Your task to perform on an android device: Search for "dell alienware" on bestbuy, select the first entry, add it to the cart, then select checkout. Image 0: 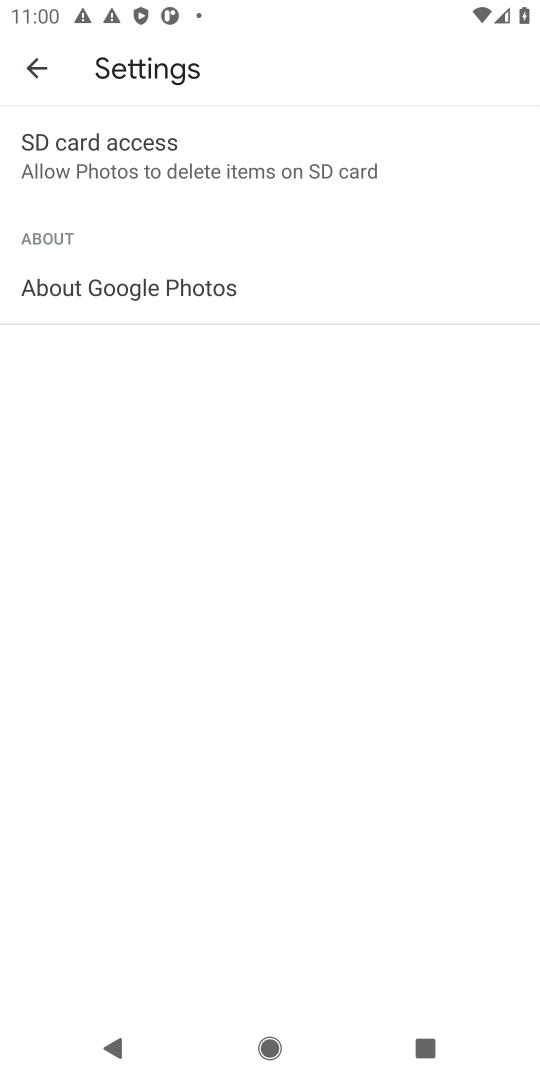
Step 0: press home button
Your task to perform on an android device: Search for "dell alienware" on bestbuy, select the first entry, add it to the cart, then select checkout. Image 1: 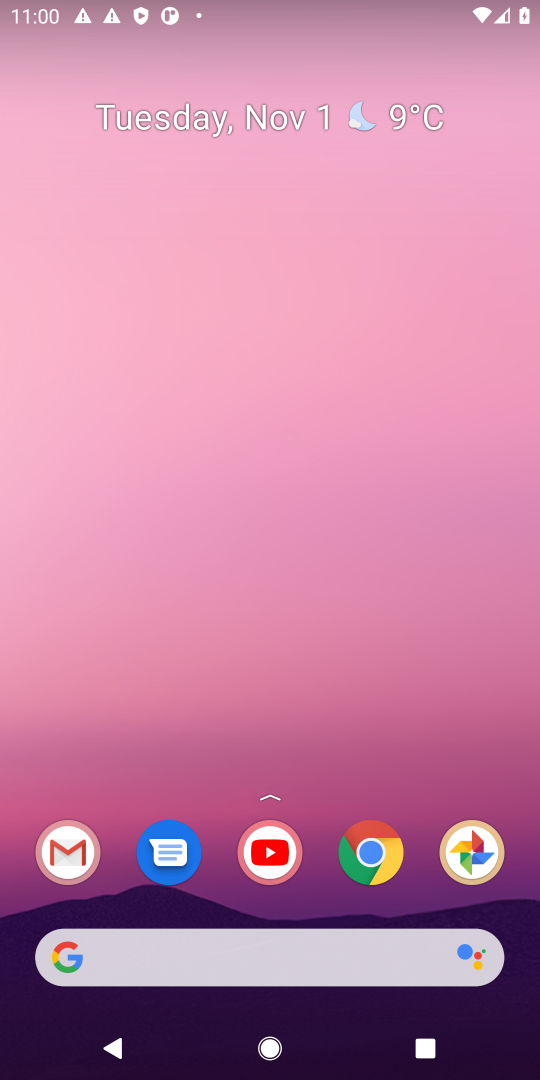
Step 1: drag from (150, 980) to (116, 165)
Your task to perform on an android device: Search for "dell alienware" on bestbuy, select the first entry, add it to the cart, then select checkout. Image 2: 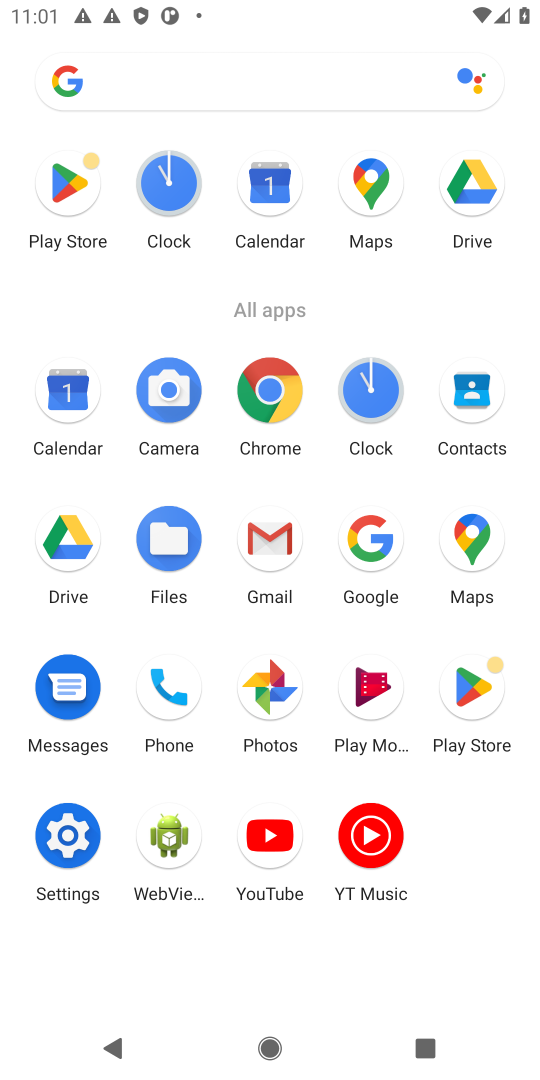
Step 2: click (353, 566)
Your task to perform on an android device: Search for "dell alienware" on bestbuy, select the first entry, add it to the cart, then select checkout. Image 3: 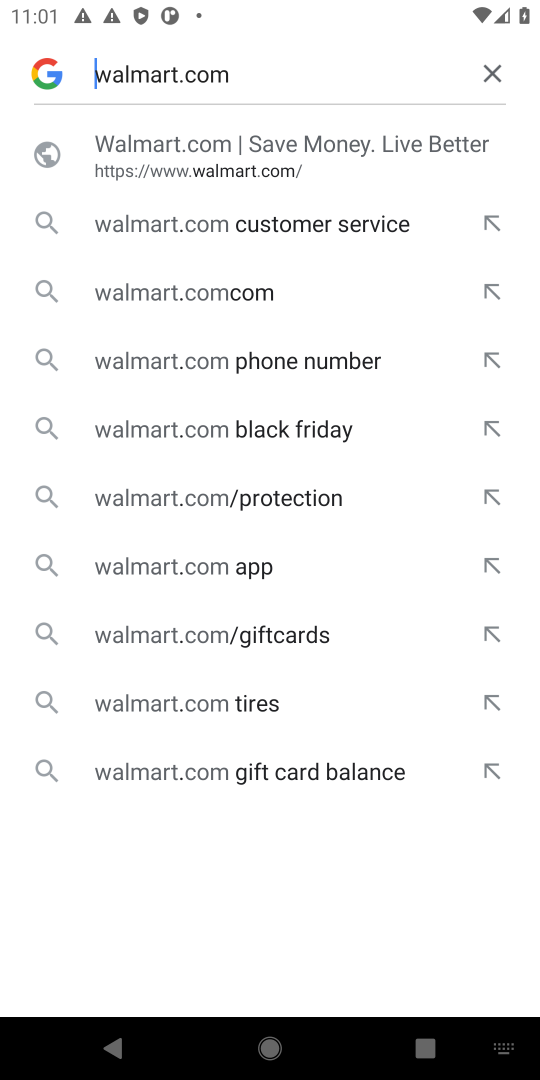
Step 3: click (490, 73)
Your task to perform on an android device: Search for "dell alienware" on bestbuy, select the first entry, add it to the cart, then select checkout. Image 4: 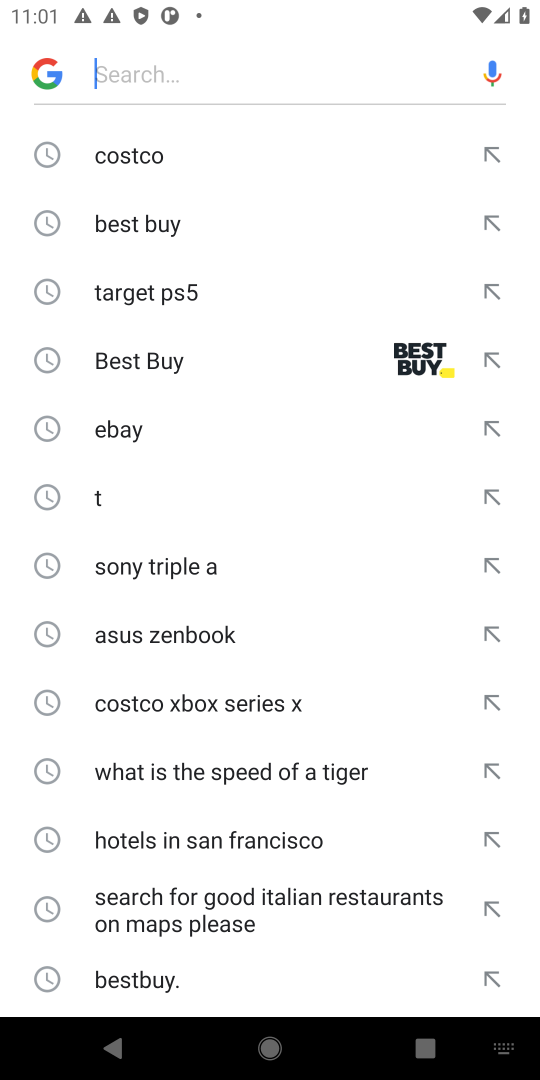
Step 4: click (202, 228)
Your task to perform on an android device: Search for "dell alienware" on bestbuy, select the first entry, add it to the cart, then select checkout. Image 5: 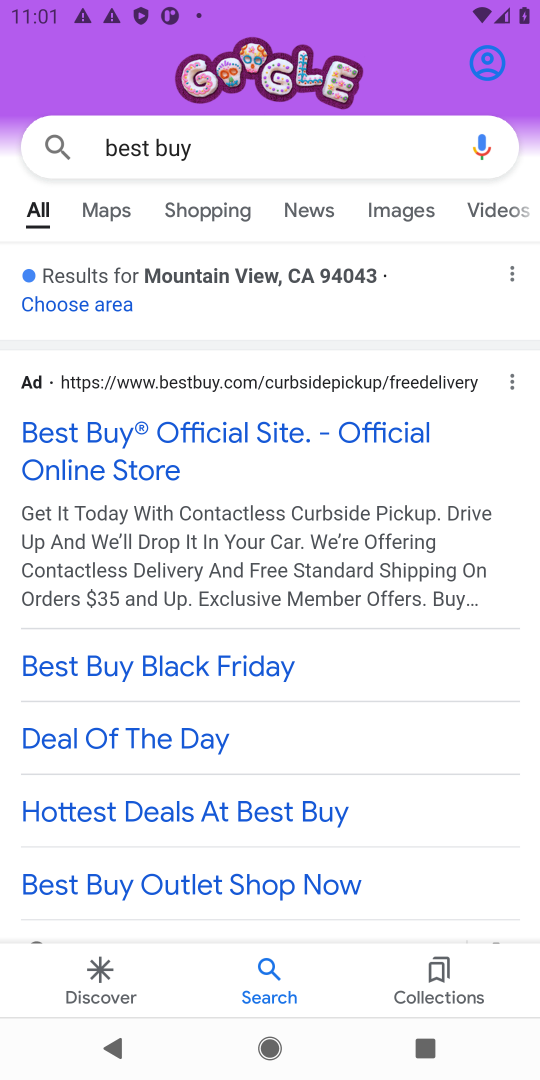
Step 5: click (177, 451)
Your task to perform on an android device: Search for "dell alienware" on bestbuy, select the first entry, add it to the cart, then select checkout. Image 6: 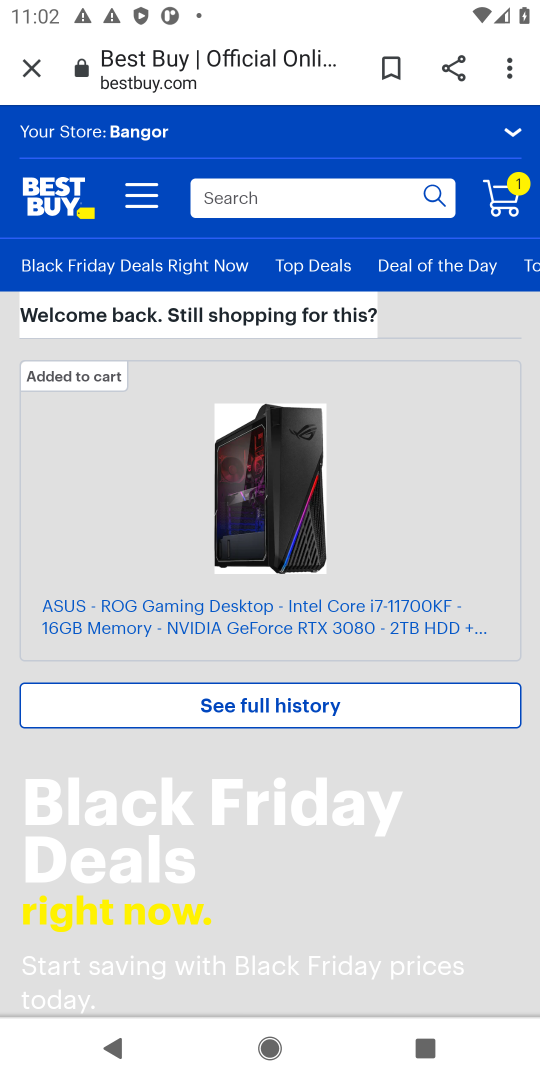
Step 6: click (378, 203)
Your task to perform on an android device: Search for "dell alienware" on bestbuy, select the first entry, add it to the cart, then select checkout. Image 7: 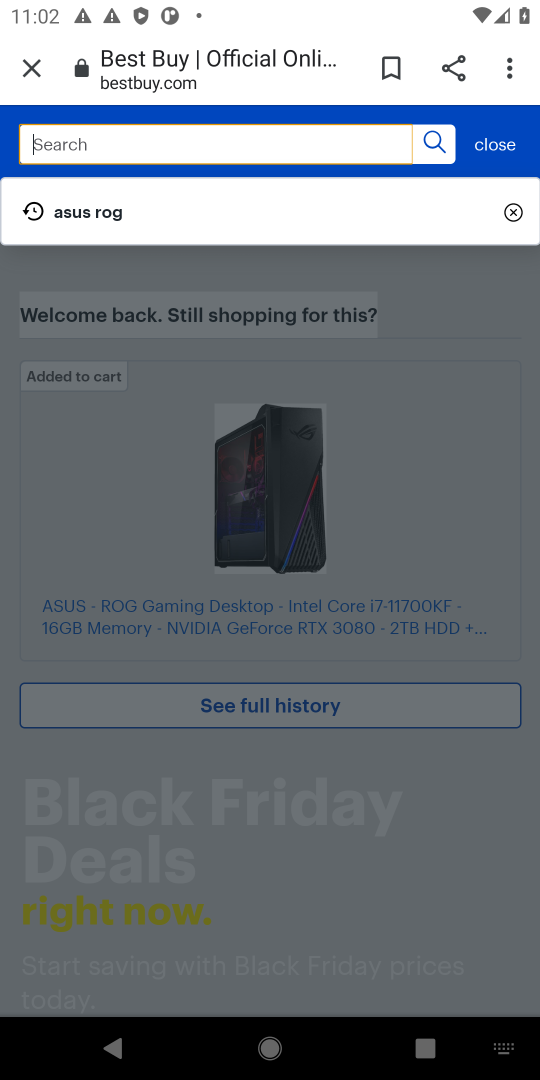
Step 7: type "dell alienware"
Your task to perform on an android device: Search for "dell alienware" on bestbuy, select the first entry, add it to the cart, then select checkout. Image 8: 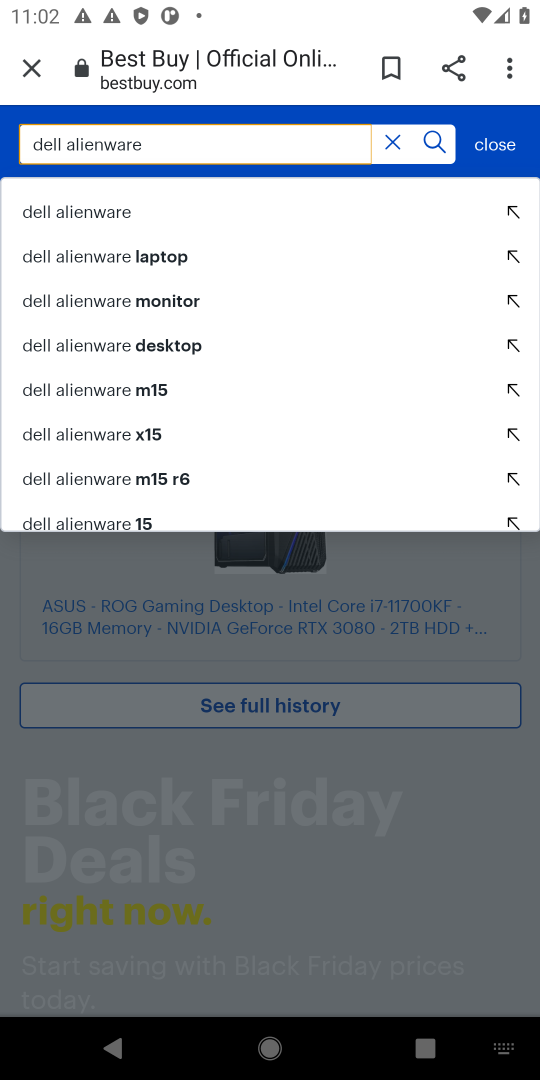
Step 8: click (172, 213)
Your task to perform on an android device: Search for "dell alienware" on bestbuy, select the first entry, add it to the cart, then select checkout. Image 9: 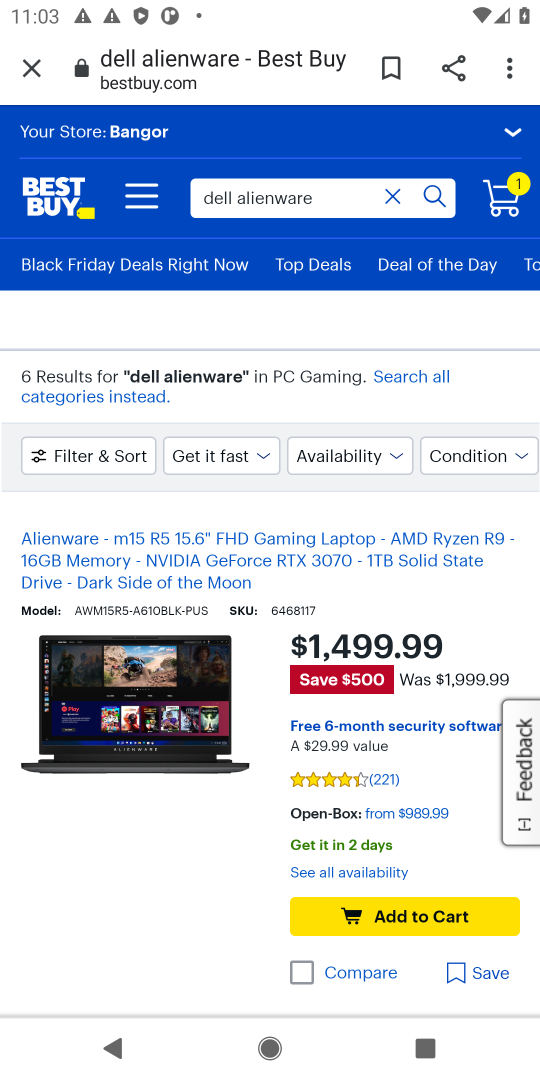
Step 9: click (406, 916)
Your task to perform on an android device: Search for "dell alienware" on bestbuy, select the first entry, add it to the cart, then select checkout. Image 10: 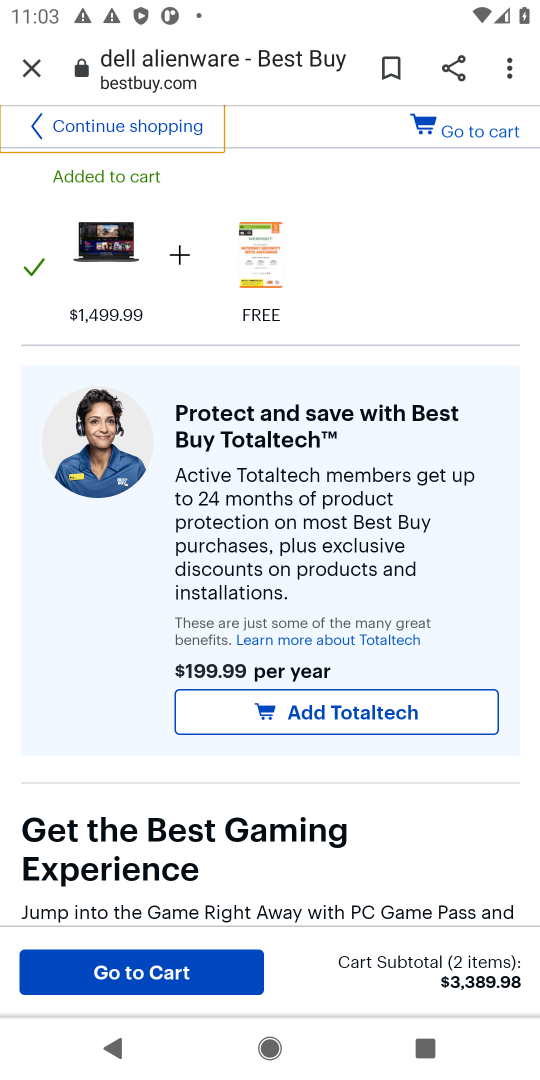
Step 10: click (147, 971)
Your task to perform on an android device: Search for "dell alienware" on bestbuy, select the first entry, add it to the cart, then select checkout. Image 11: 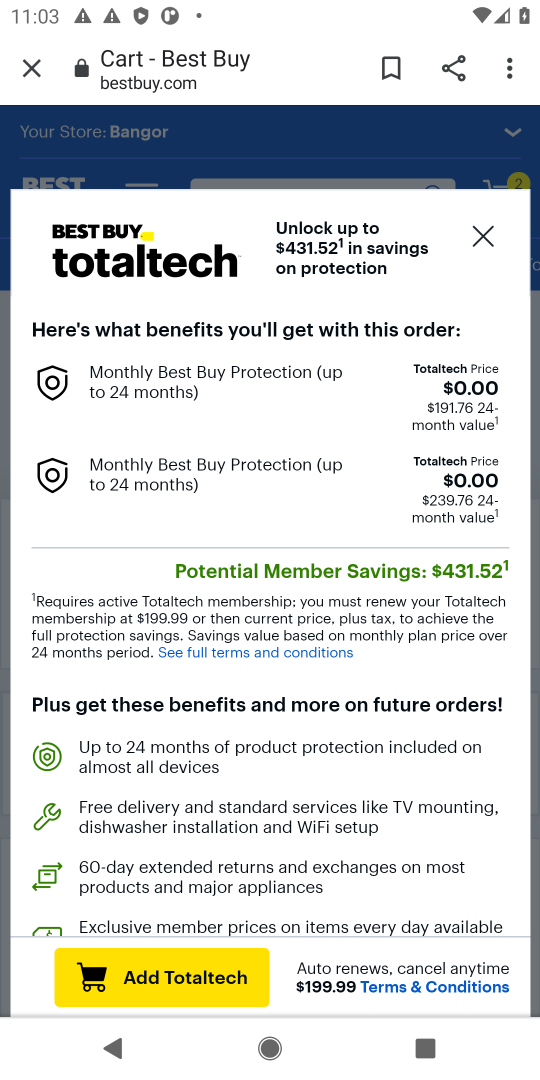
Step 11: drag from (385, 554) to (360, 837)
Your task to perform on an android device: Search for "dell alienware" on bestbuy, select the first entry, add it to the cart, then select checkout. Image 12: 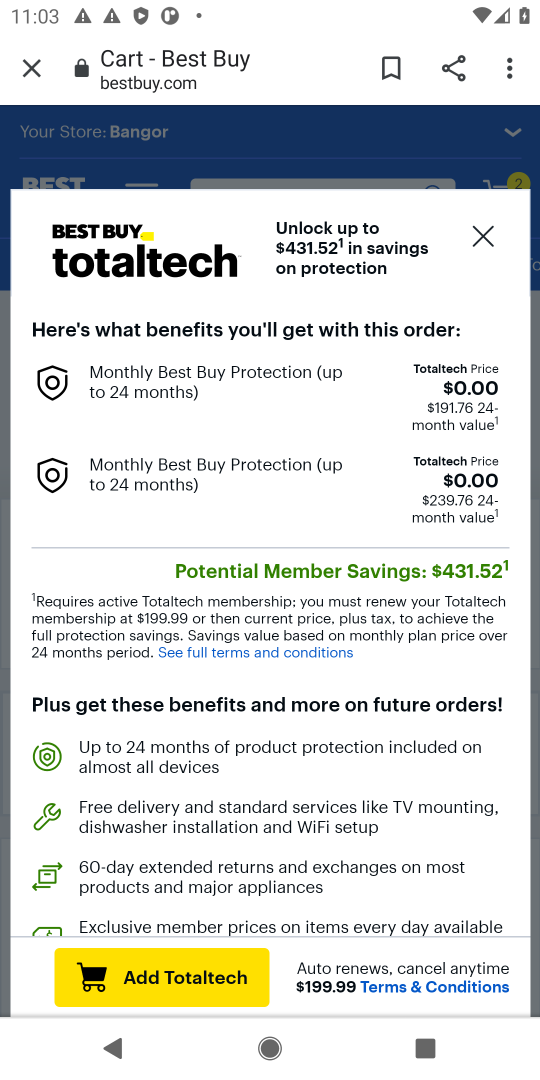
Step 12: click (479, 239)
Your task to perform on an android device: Search for "dell alienware" on bestbuy, select the first entry, add it to the cart, then select checkout. Image 13: 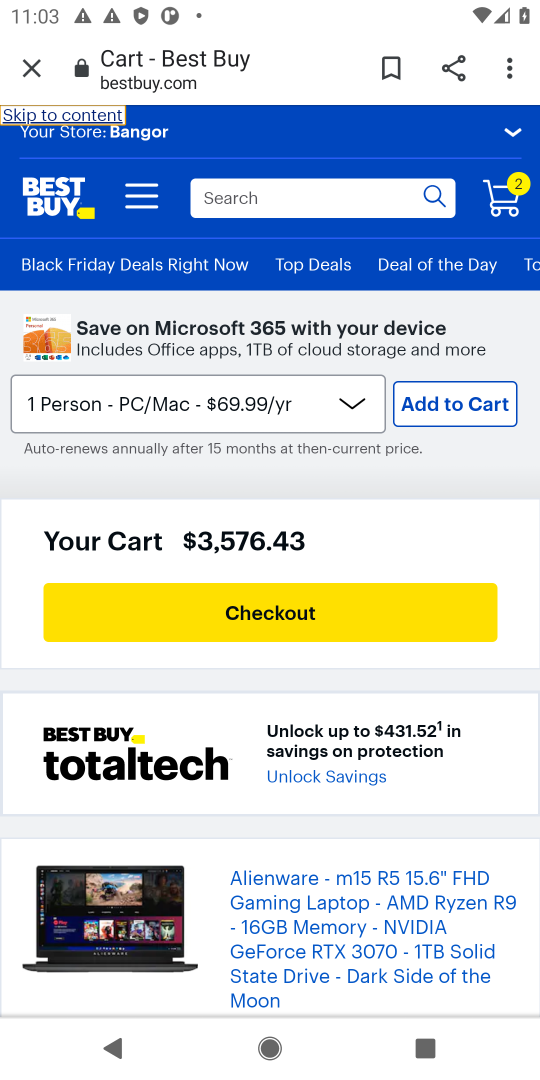
Step 13: click (259, 601)
Your task to perform on an android device: Search for "dell alienware" on bestbuy, select the first entry, add it to the cart, then select checkout. Image 14: 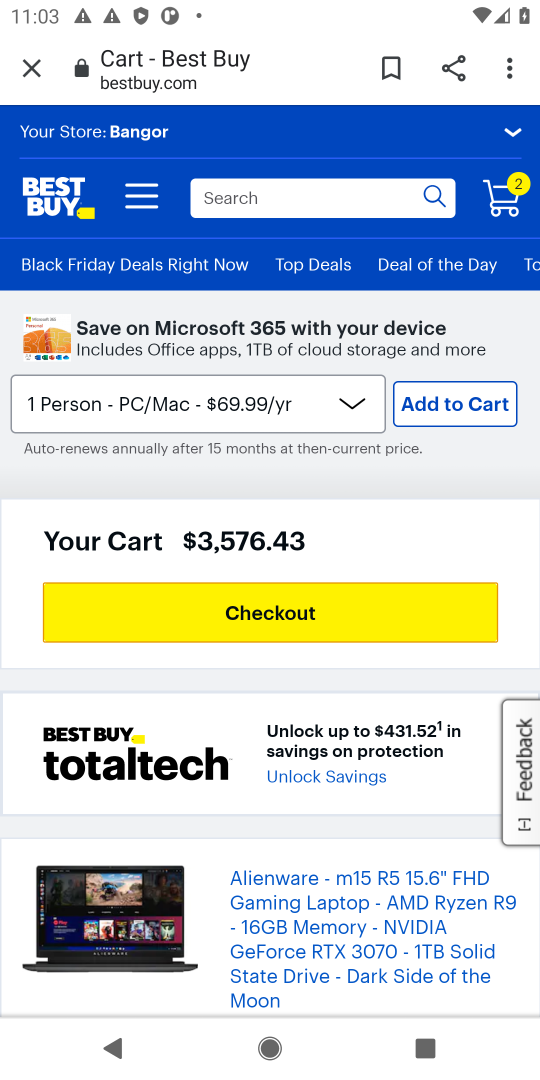
Step 14: click (258, 627)
Your task to perform on an android device: Search for "dell alienware" on bestbuy, select the first entry, add it to the cart, then select checkout. Image 15: 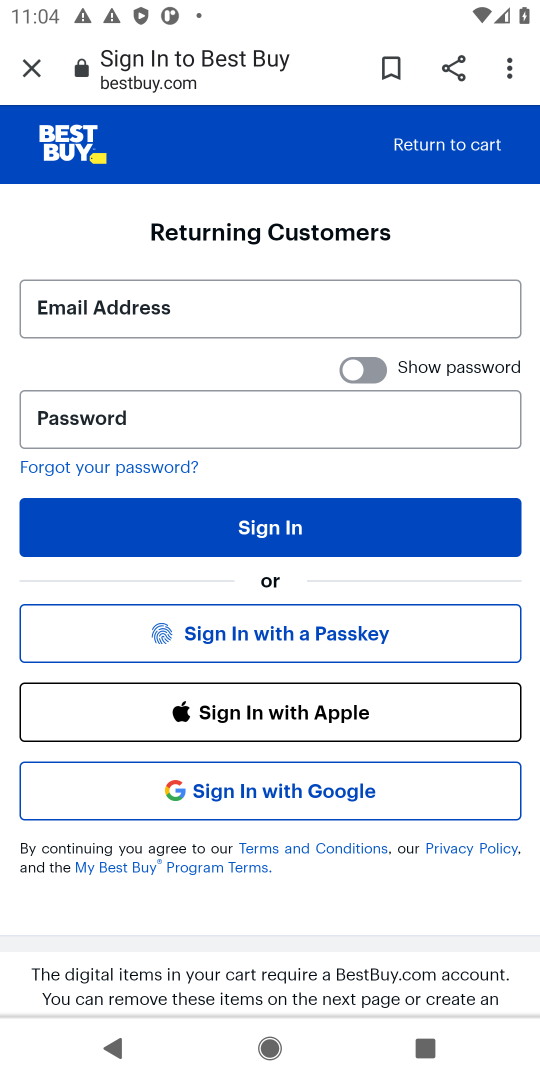
Step 15: task complete